Your task to perform on an android device: turn on sleep mode Image 0: 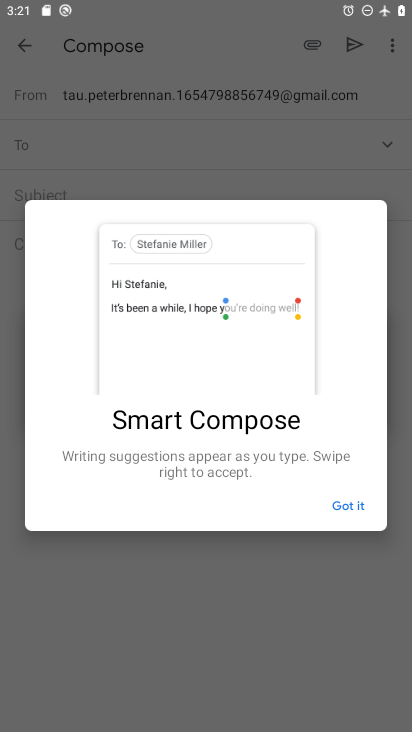
Step 0: press home button
Your task to perform on an android device: turn on sleep mode Image 1: 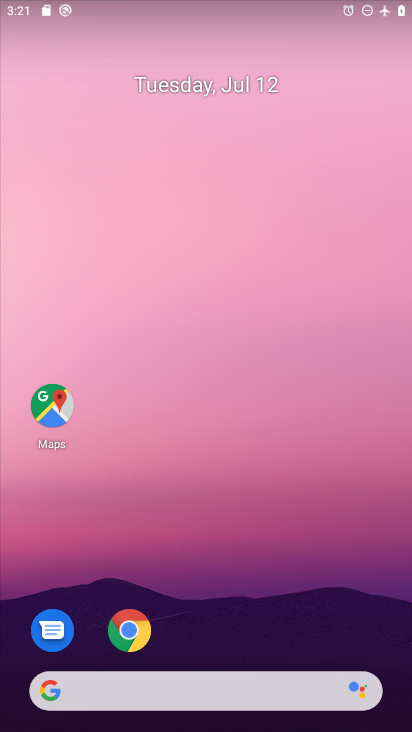
Step 1: drag from (204, 640) to (170, 248)
Your task to perform on an android device: turn on sleep mode Image 2: 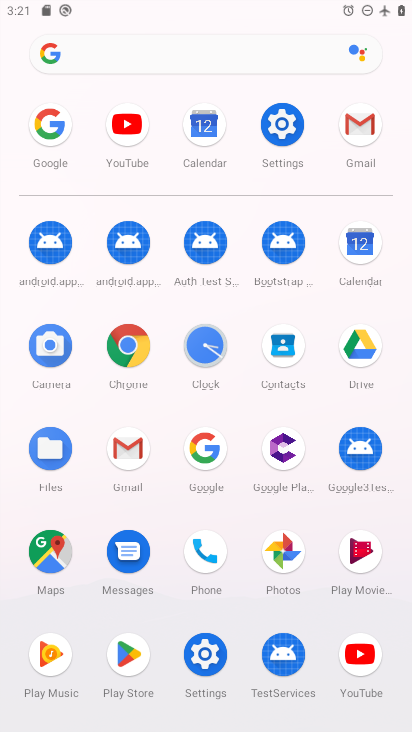
Step 2: click (277, 118)
Your task to perform on an android device: turn on sleep mode Image 3: 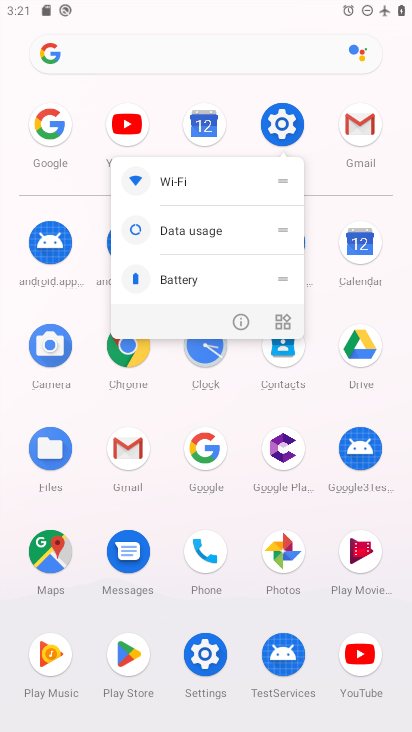
Step 3: click (274, 117)
Your task to perform on an android device: turn on sleep mode Image 4: 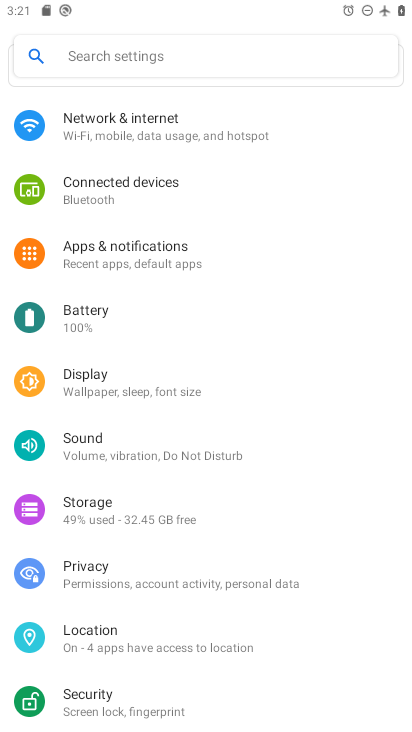
Step 4: click (170, 387)
Your task to perform on an android device: turn on sleep mode Image 5: 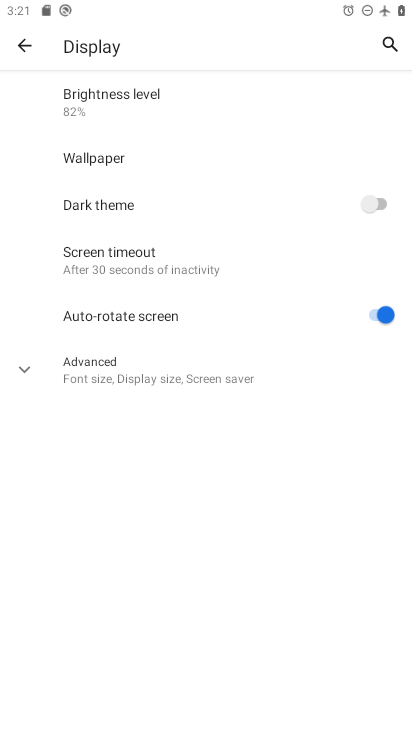
Step 5: click (136, 272)
Your task to perform on an android device: turn on sleep mode Image 6: 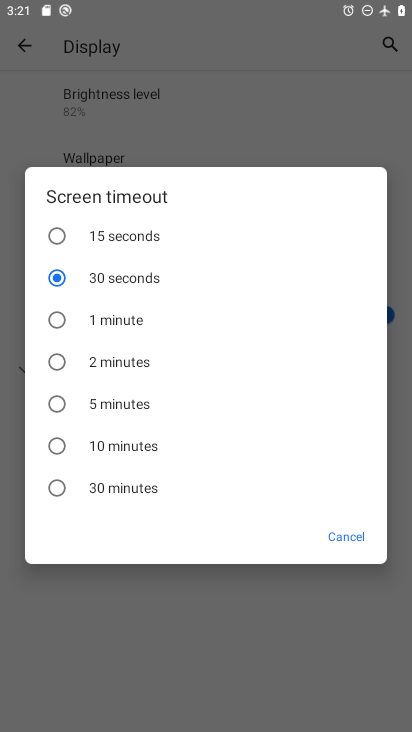
Step 6: click (93, 438)
Your task to perform on an android device: turn on sleep mode Image 7: 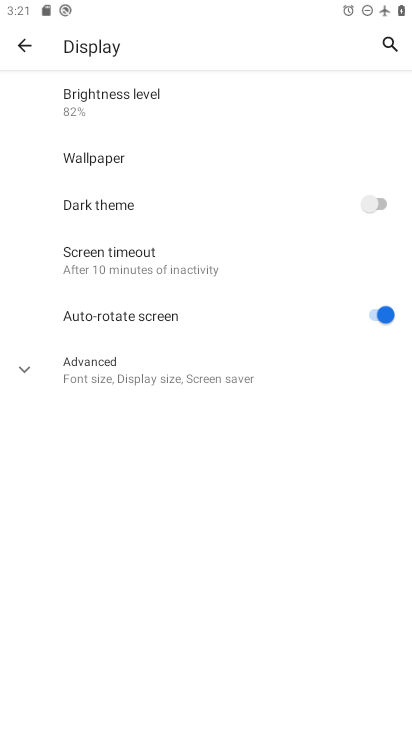
Step 7: task complete